Your task to perform on an android device: toggle wifi Image 0: 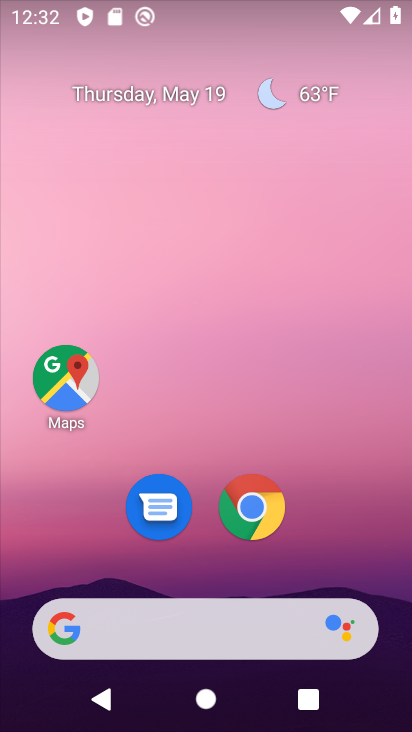
Step 0: drag from (167, 581) to (168, 116)
Your task to perform on an android device: toggle wifi Image 1: 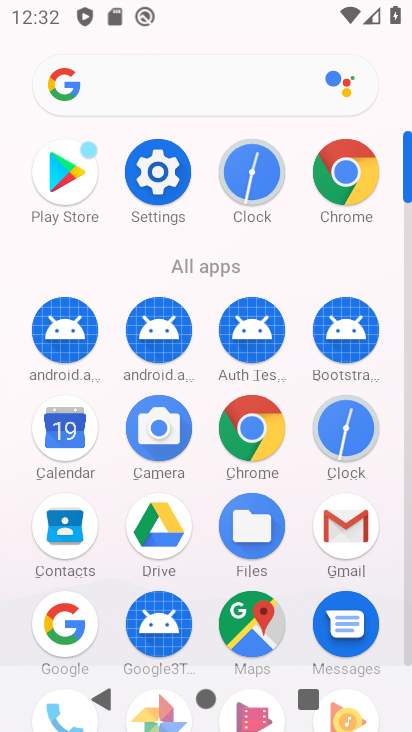
Step 1: click (162, 192)
Your task to perform on an android device: toggle wifi Image 2: 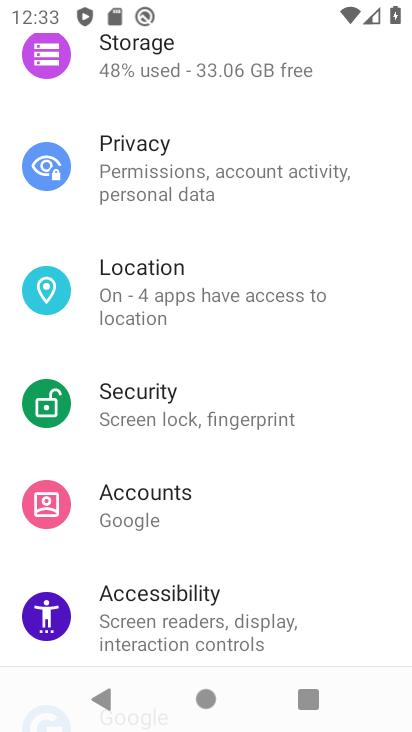
Step 2: drag from (209, 95) to (273, 503)
Your task to perform on an android device: toggle wifi Image 3: 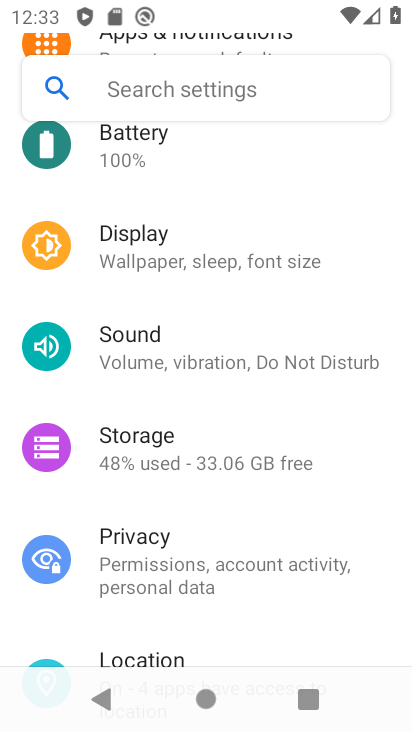
Step 3: drag from (223, 154) to (285, 573)
Your task to perform on an android device: toggle wifi Image 4: 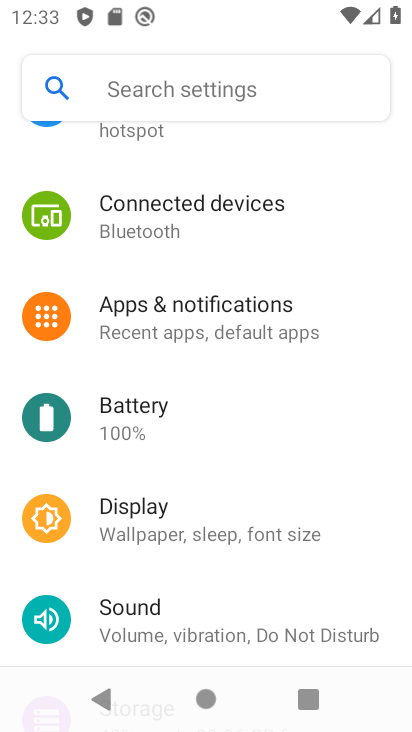
Step 4: drag from (258, 200) to (266, 700)
Your task to perform on an android device: toggle wifi Image 5: 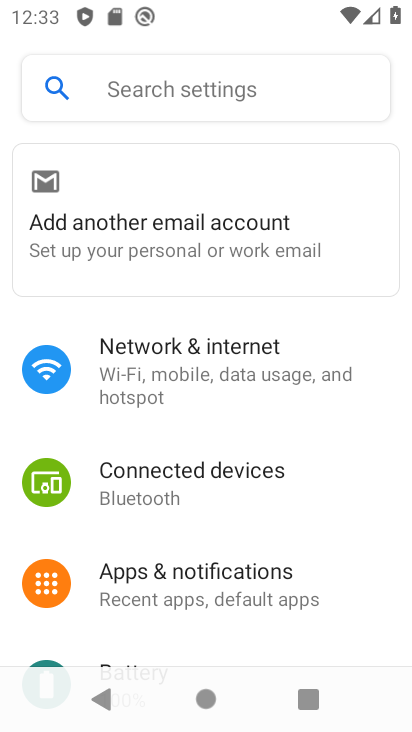
Step 5: click (193, 364)
Your task to perform on an android device: toggle wifi Image 6: 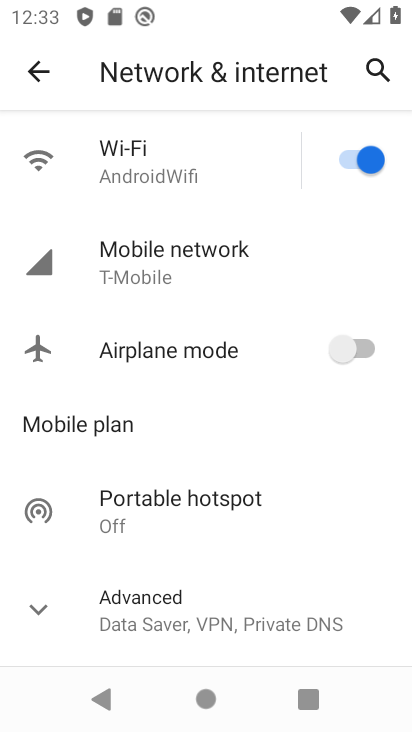
Step 6: click (347, 153)
Your task to perform on an android device: toggle wifi Image 7: 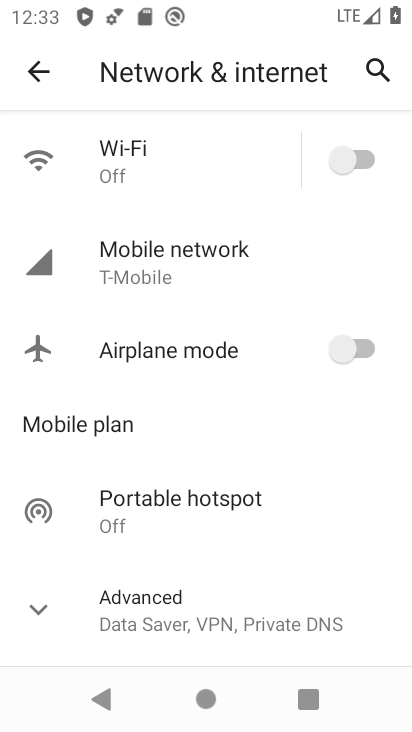
Step 7: task complete